Your task to perform on an android device: Set the phone to "Do not disturb". Image 0: 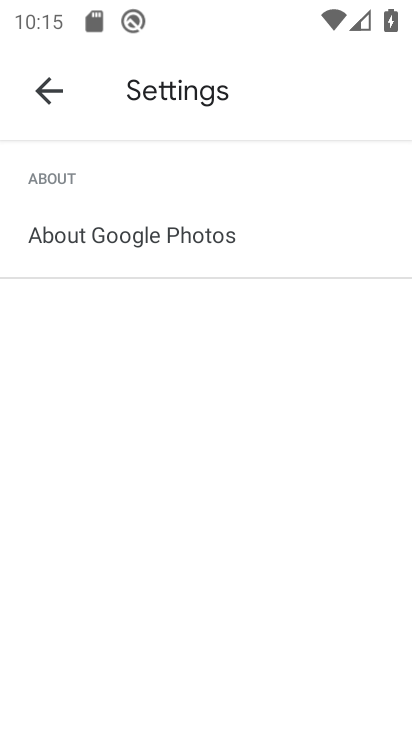
Step 0: press home button
Your task to perform on an android device: Set the phone to "Do not disturb". Image 1: 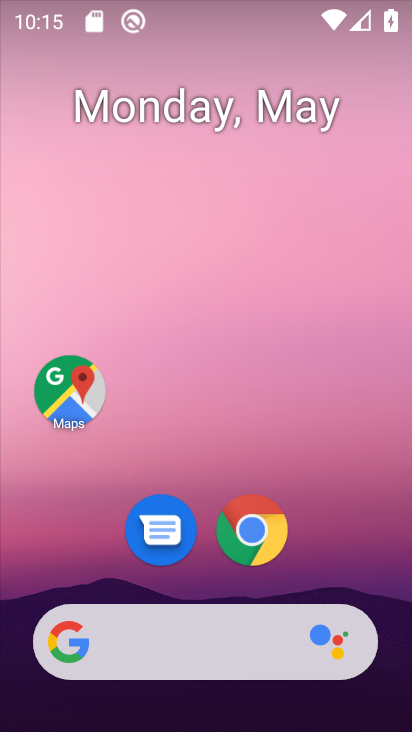
Step 1: drag from (217, 614) to (250, 35)
Your task to perform on an android device: Set the phone to "Do not disturb". Image 2: 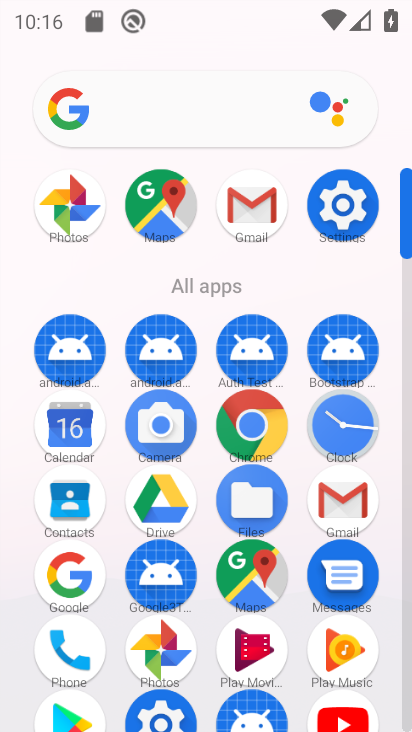
Step 2: click (343, 212)
Your task to perform on an android device: Set the phone to "Do not disturb". Image 3: 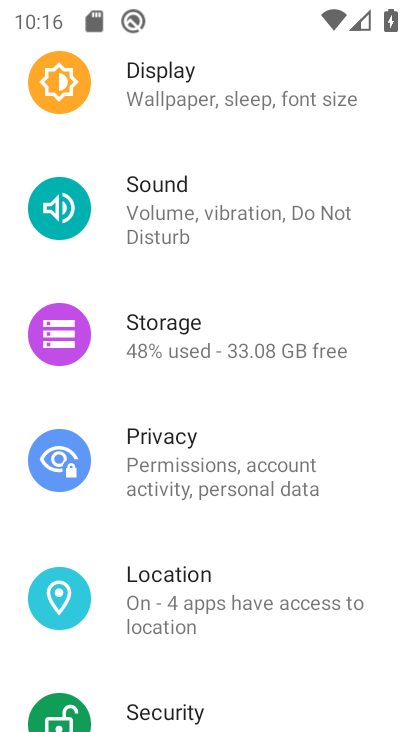
Step 3: click (172, 204)
Your task to perform on an android device: Set the phone to "Do not disturb". Image 4: 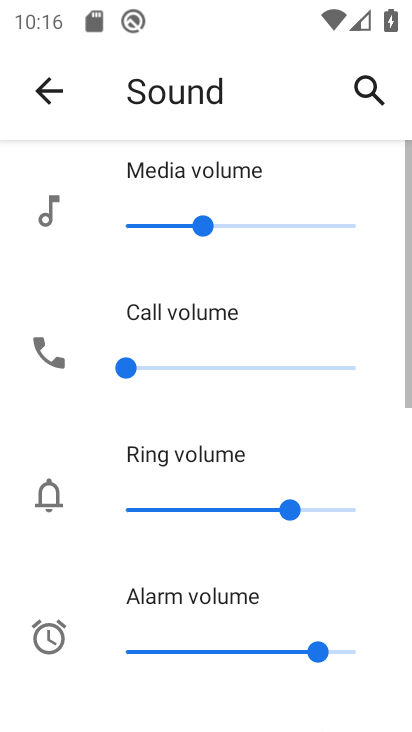
Step 4: drag from (185, 576) to (59, 0)
Your task to perform on an android device: Set the phone to "Do not disturb". Image 5: 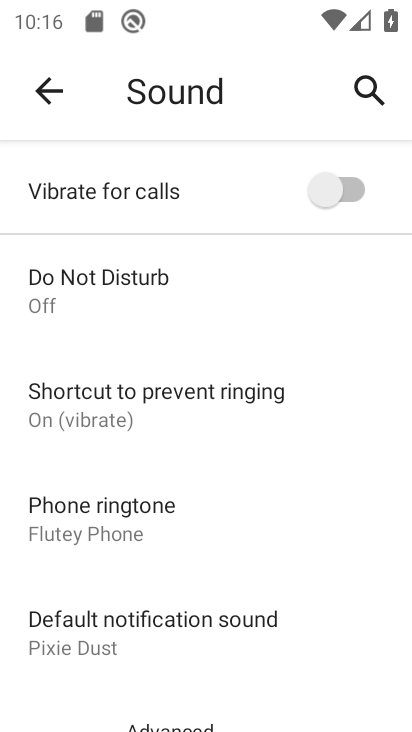
Step 5: click (78, 286)
Your task to perform on an android device: Set the phone to "Do not disturb". Image 6: 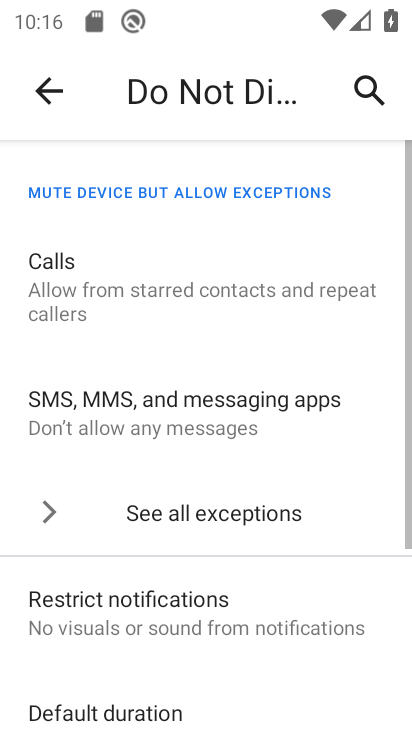
Step 6: drag from (146, 588) to (4, 69)
Your task to perform on an android device: Set the phone to "Do not disturb". Image 7: 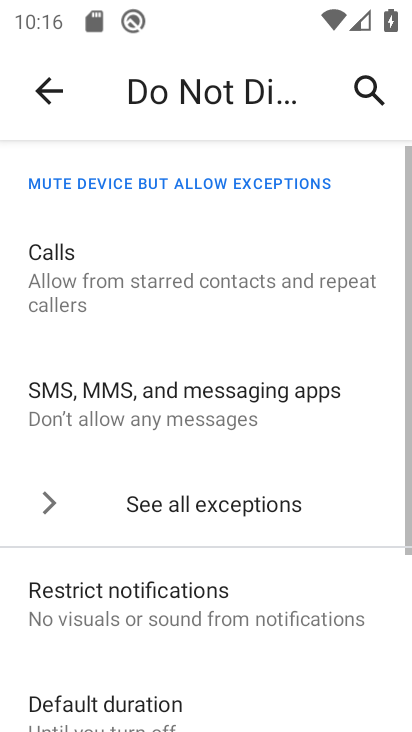
Step 7: drag from (193, 723) to (200, 44)
Your task to perform on an android device: Set the phone to "Do not disturb". Image 8: 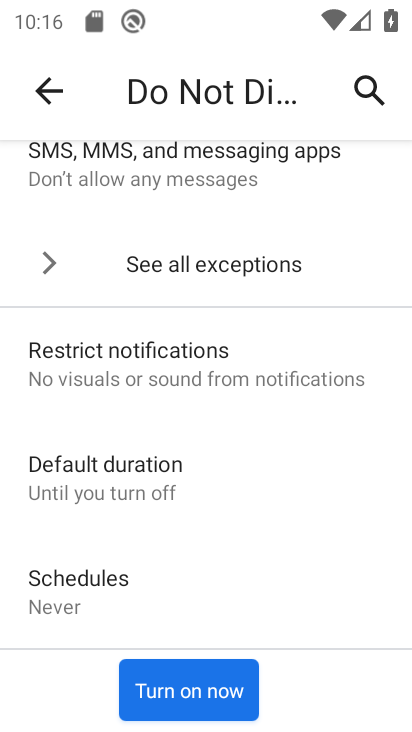
Step 8: click (188, 701)
Your task to perform on an android device: Set the phone to "Do not disturb". Image 9: 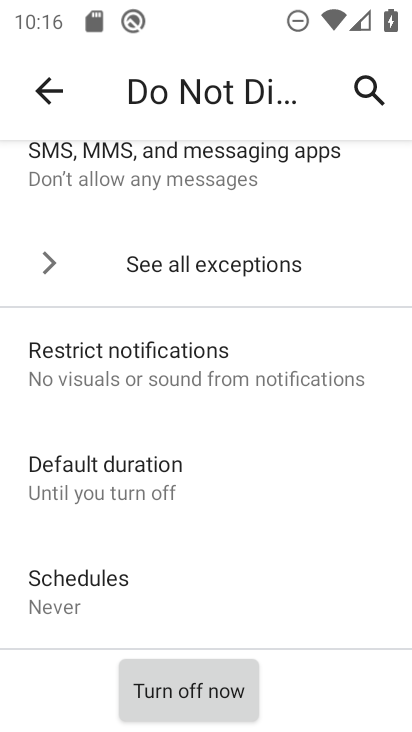
Step 9: task complete